Your task to perform on an android device: turn off improve location accuracy Image 0: 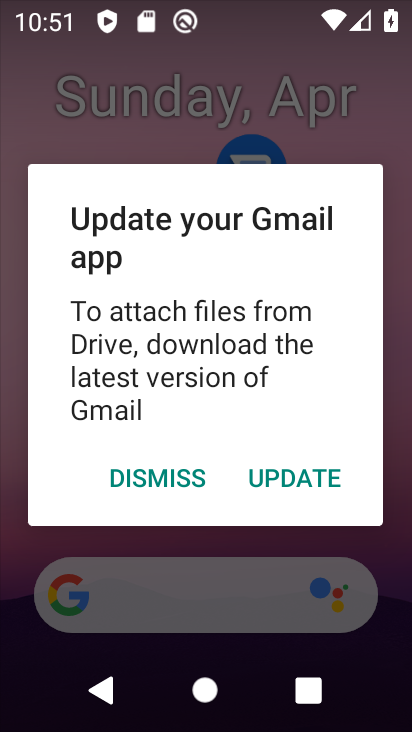
Step 0: press home button
Your task to perform on an android device: turn off improve location accuracy Image 1: 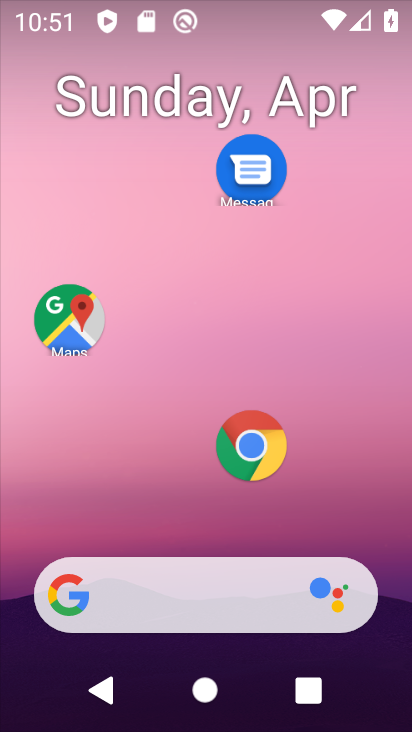
Step 1: drag from (199, 595) to (402, 13)
Your task to perform on an android device: turn off improve location accuracy Image 2: 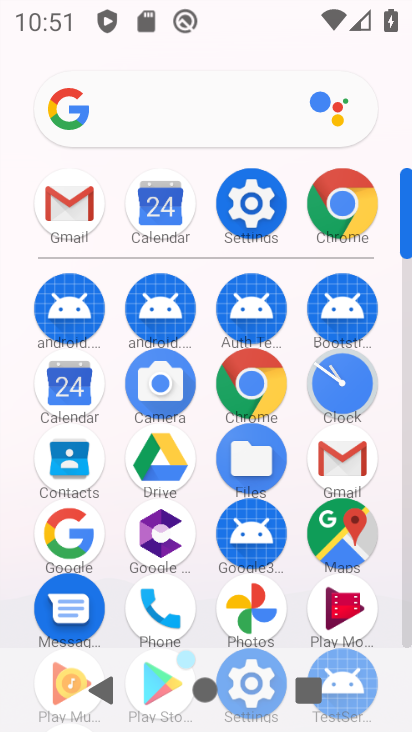
Step 2: click (256, 224)
Your task to perform on an android device: turn off improve location accuracy Image 3: 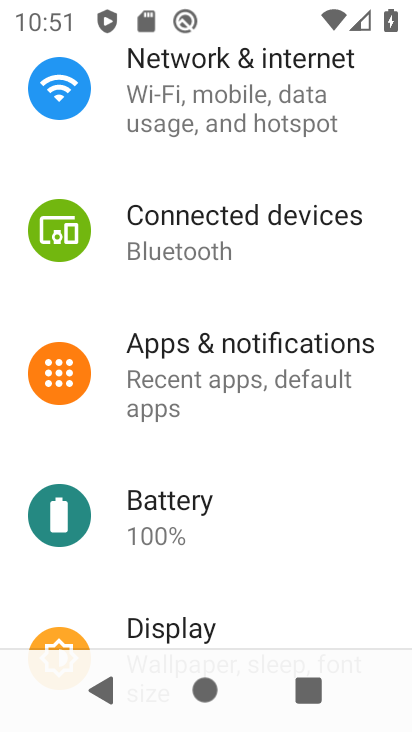
Step 3: drag from (227, 558) to (375, 110)
Your task to perform on an android device: turn off improve location accuracy Image 4: 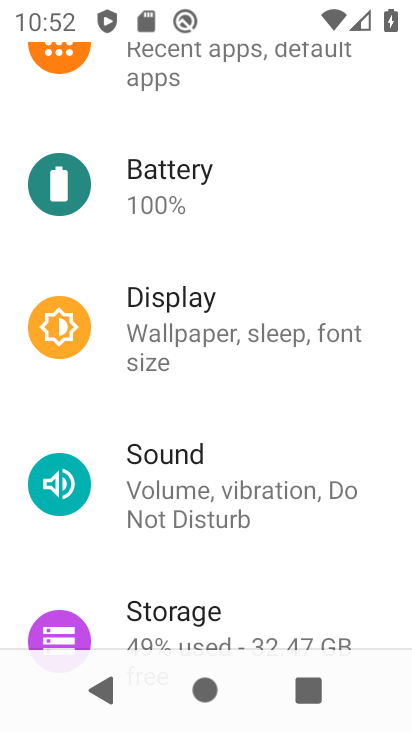
Step 4: drag from (234, 559) to (373, 81)
Your task to perform on an android device: turn off improve location accuracy Image 5: 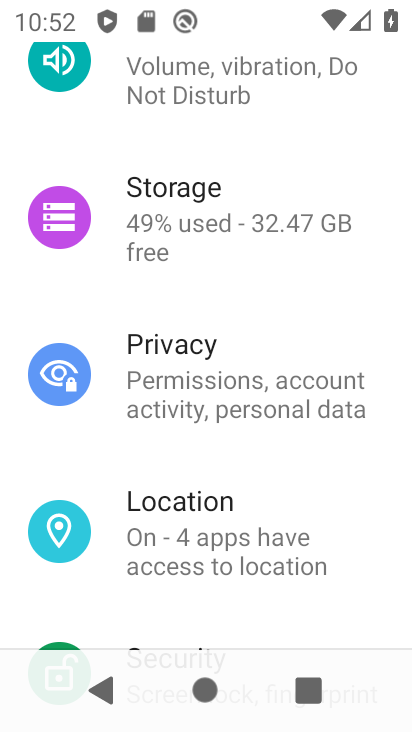
Step 5: click (219, 514)
Your task to perform on an android device: turn off improve location accuracy Image 6: 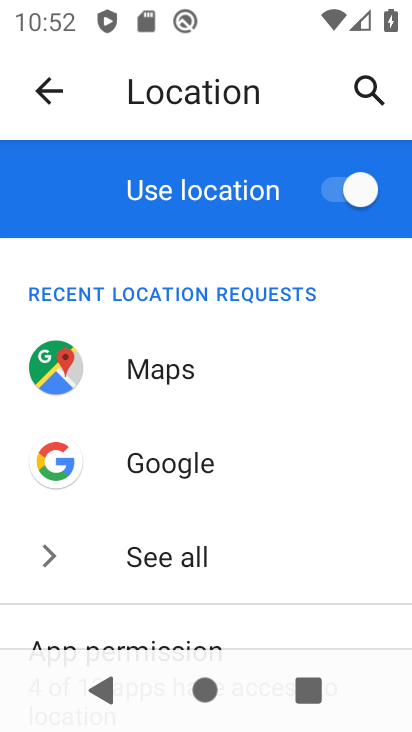
Step 6: drag from (217, 599) to (403, 186)
Your task to perform on an android device: turn off improve location accuracy Image 7: 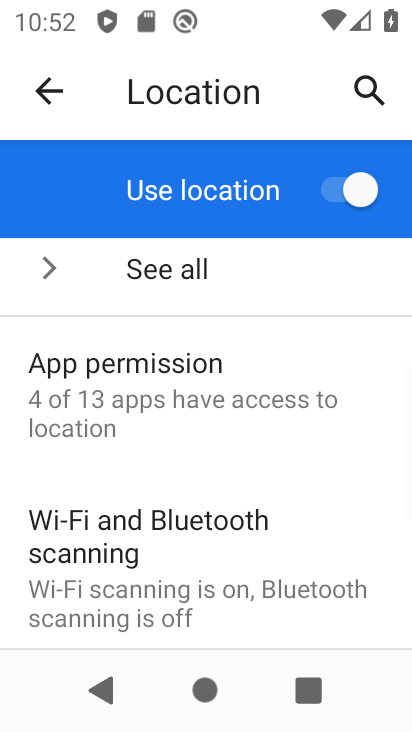
Step 7: drag from (178, 599) to (410, 95)
Your task to perform on an android device: turn off improve location accuracy Image 8: 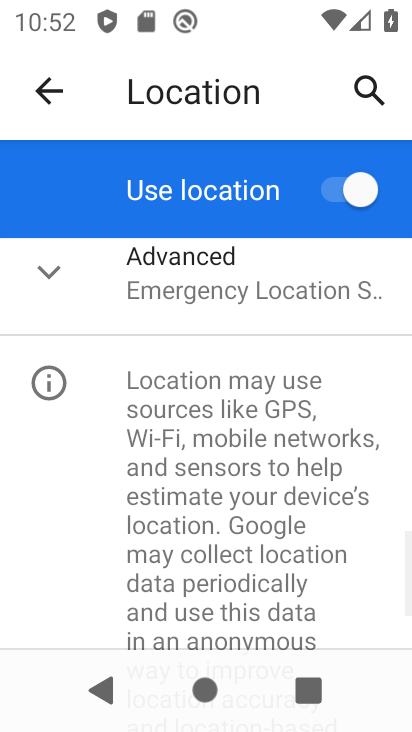
Step 8: click (189, 275)
Your task to perform on an android device: turn off improve location accuracy Image 9: 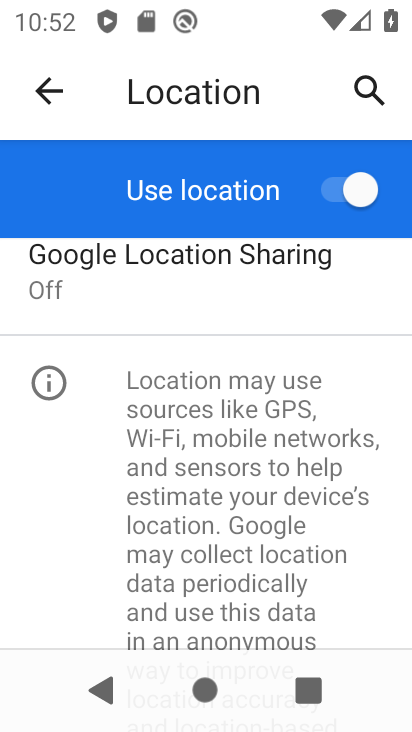
Step 9: drag from (224, 280) to (174, 586)
Your task to perform on an android device: turn off improve location accuracy Image 10: 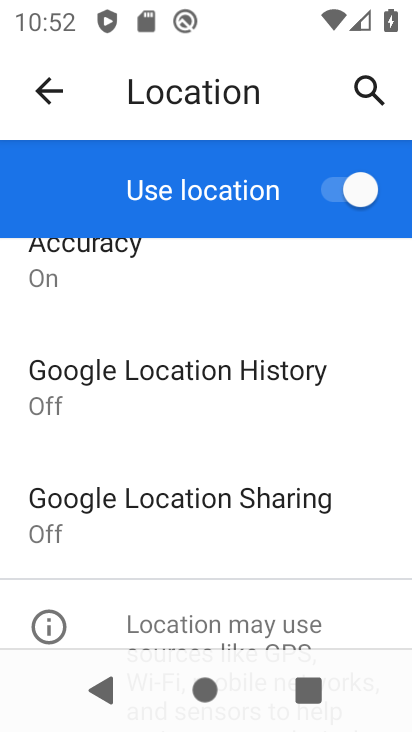
Step 10: drag from (238, 296) to (128, 669)
Your task to perform on an android device: turn off improve location accuracy Image 11: 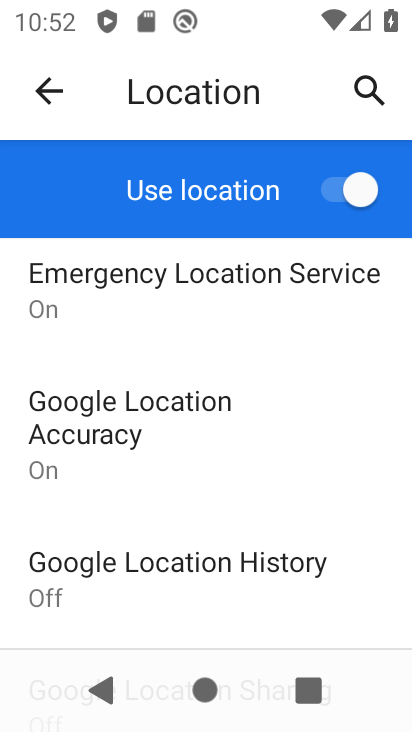
Step 11: click (149, 402)
Your task to perform on an android device: turn off improve location accuracy Image 12: 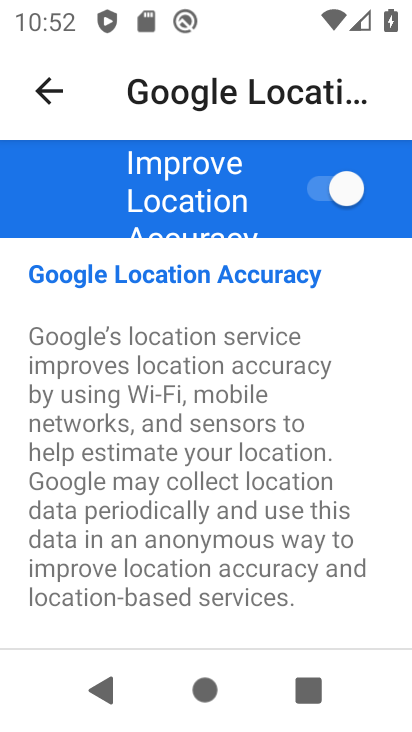
Step 12: click (325, 187)
Your task to perform on an android device: turn off improve location accuracy Image 13: 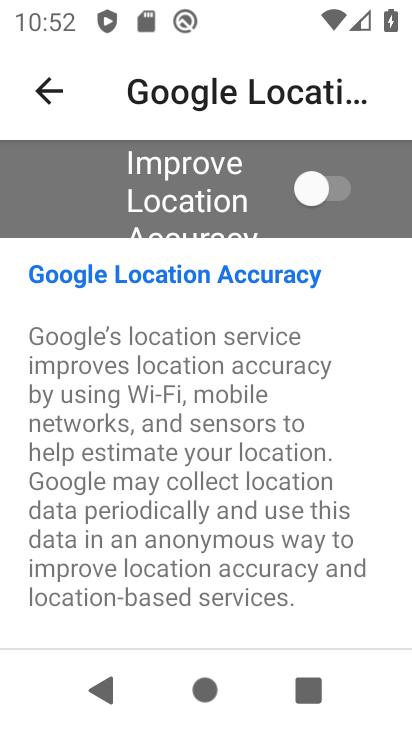
Step 13: task complete